Your task to perform on an android device: change the clock display to digital Image 0: 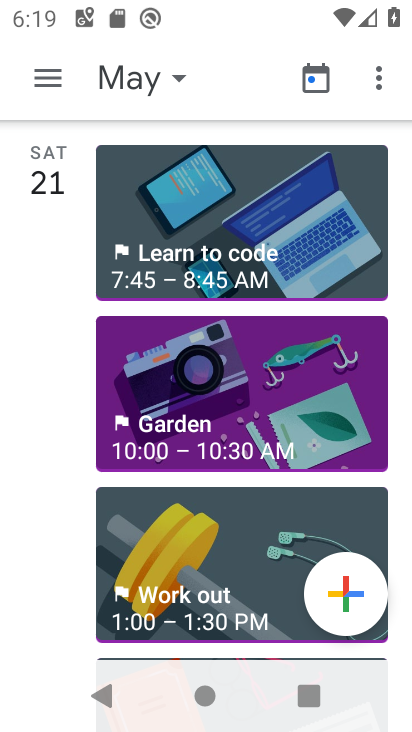
Step 0: press home button
Your task to perform on an android device: change the clock display to digital Image 1: 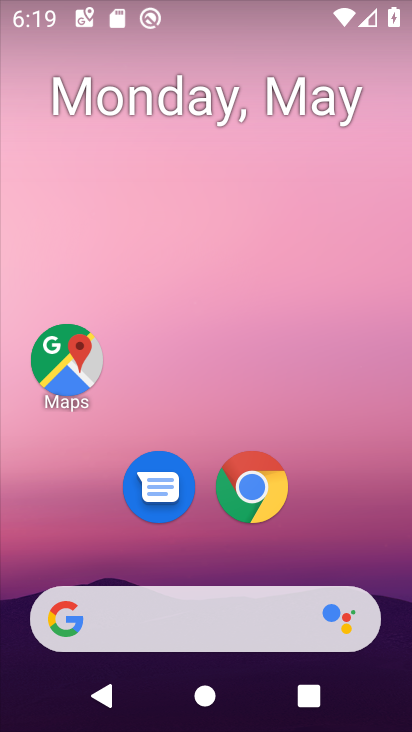
Step 1: click (267, 143)
Your task to perform on an android device: change the clock display to digital Image 2: 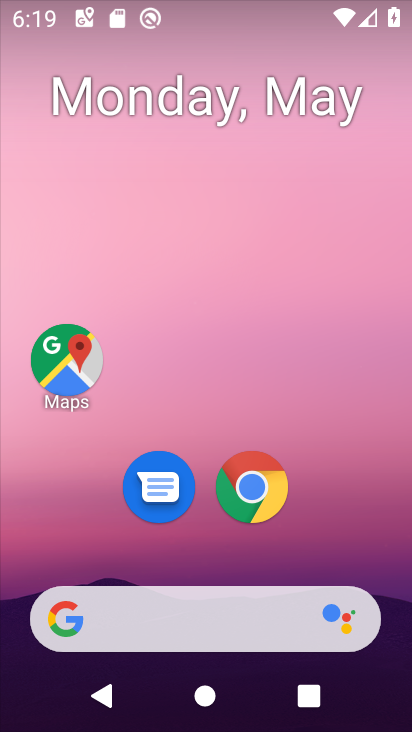
Step 2: drag from (200, 549) to (326, 0)
Your task to perform on an android device: change the clock display to digital Image 3: 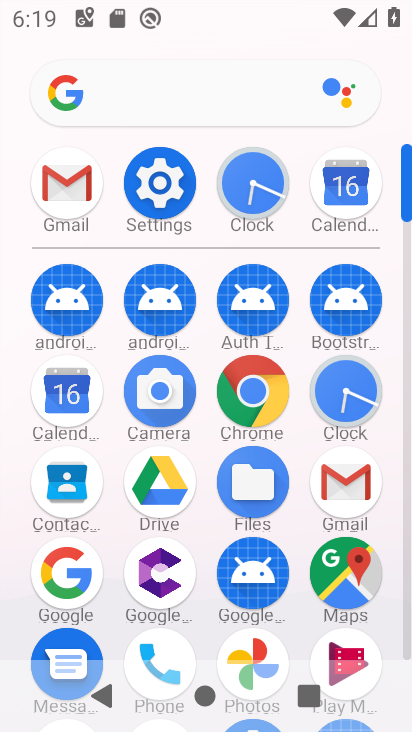
Step 3: click (340, 391)
Your task to perform on an android device: change the clock display to digital Image 4: 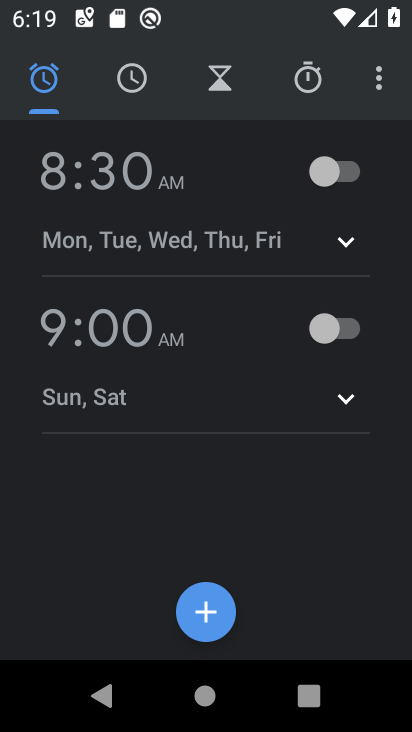
Step 4: click (383, 79)
Your task to perform on an android device: change the clock display to digital Image 5: 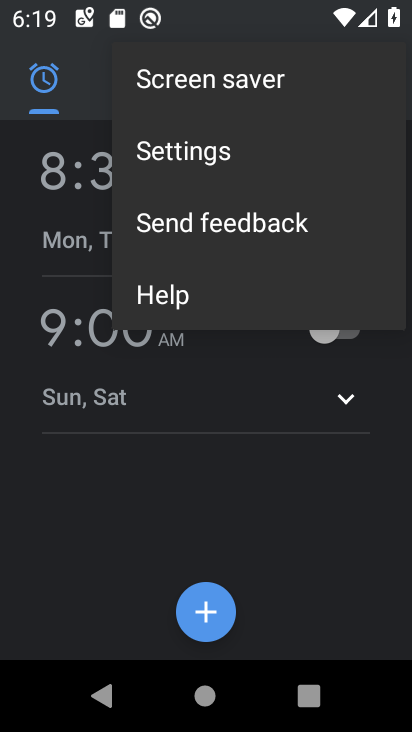
Step 5: click (245, 164)
Your task to perform on an android device: change the clock display to digital Image 6: 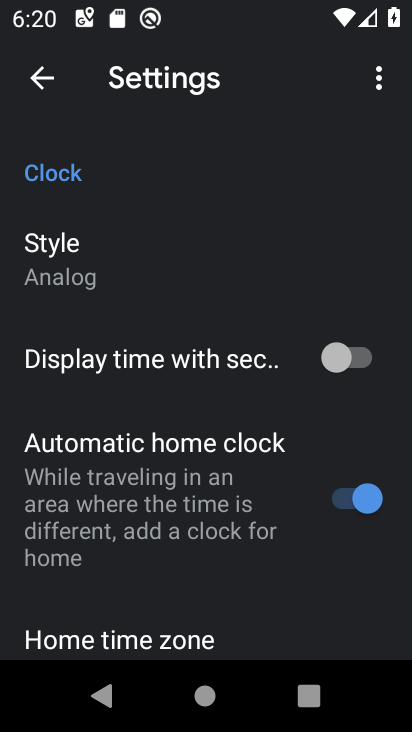
Step 6: click (111, 256)
Your task to perform on an android device: change the clock display to digital Image 7: 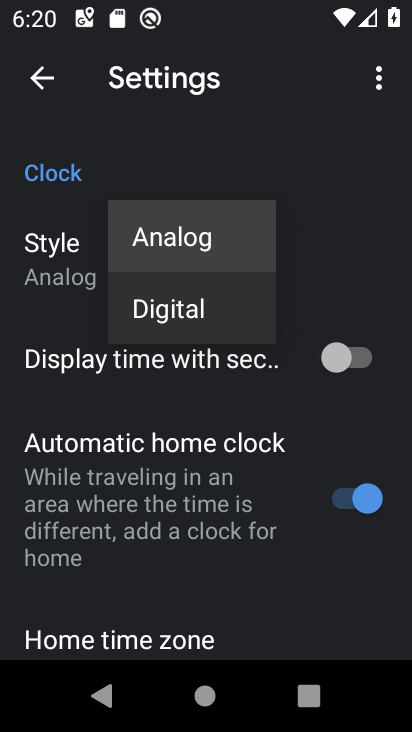
Step 7: click (195, 321)
Your task to perform on an android device: change the clock display to digital Image 8: 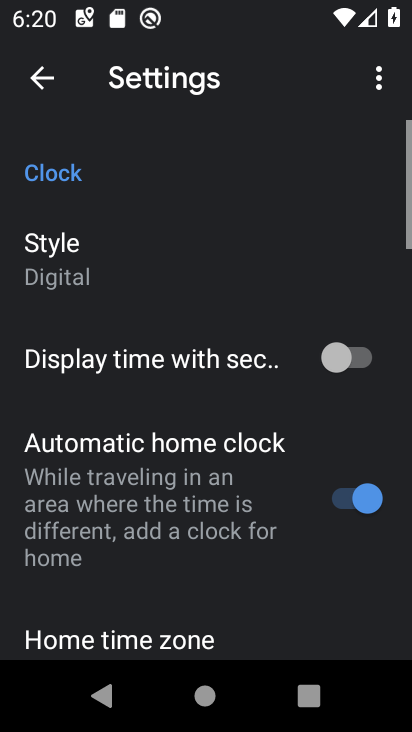
Step 8: task complete